Your task to perform on an android device: Open sound settings Image 0: 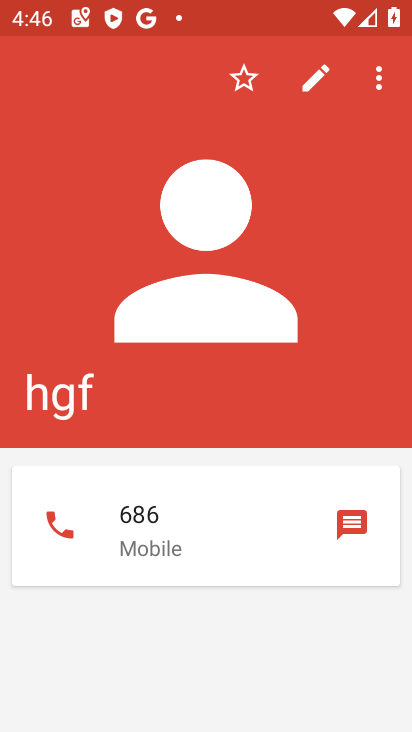
Step 0: press back button
Your task to perform on an android device: Open sound settings Image 1: 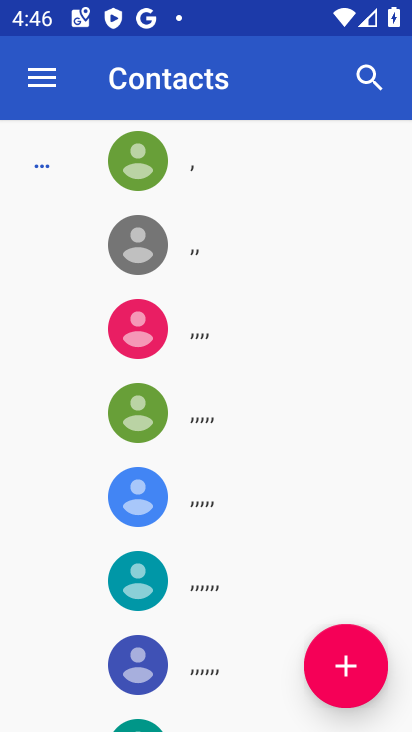
Step 1: press home button
Your task to perform on an android device: Open sound settings Image 2: 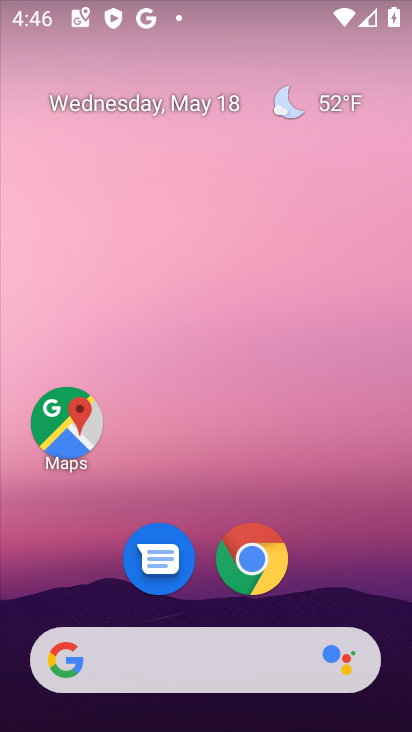
Step 2: drag from (180, 610) to (256, 68)
Your task to perform on an android device: Open sound settings Image 3: 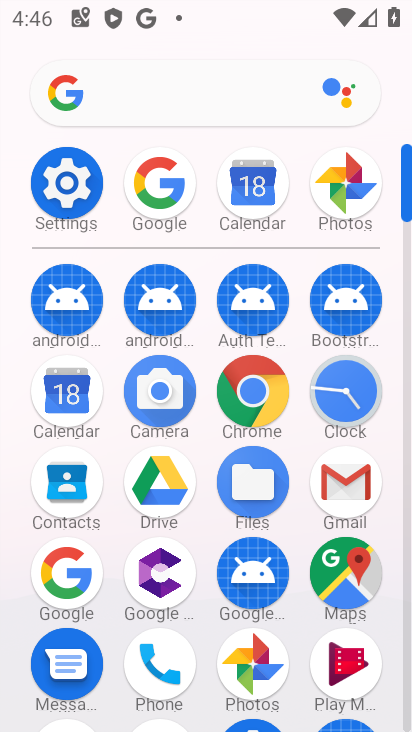
Step 3: click (65, 184)
Your task to perform on an android device: Open sound settings Image 4: 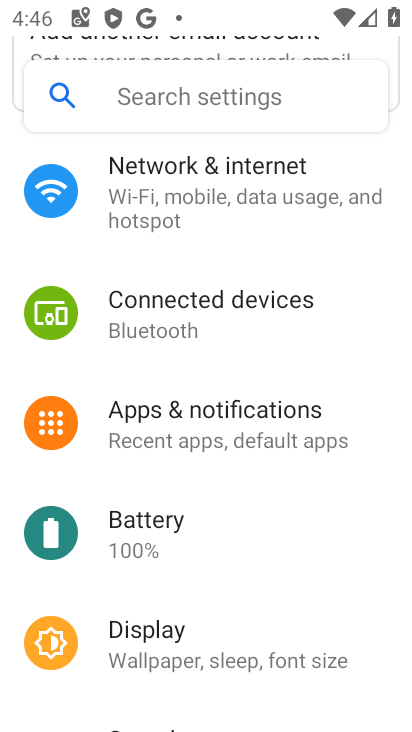
Step 4: drag from (174, 581) to (285, 98)
Your task to perform on an android device: Open sound settings Image 5: 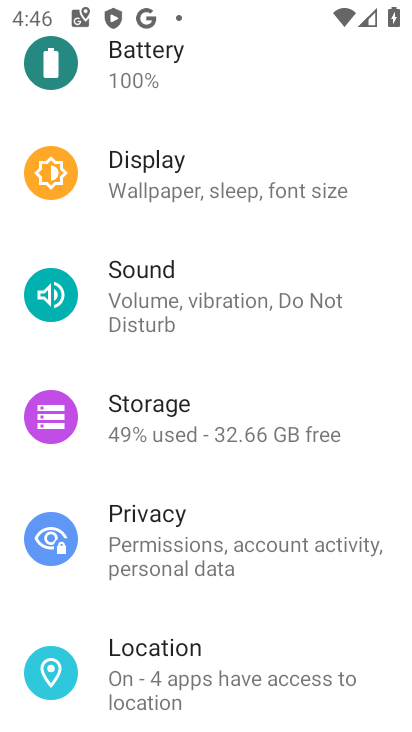
Step 5: click (128, 302)
Your task to perform on an android device: Open sound settings Image 6: 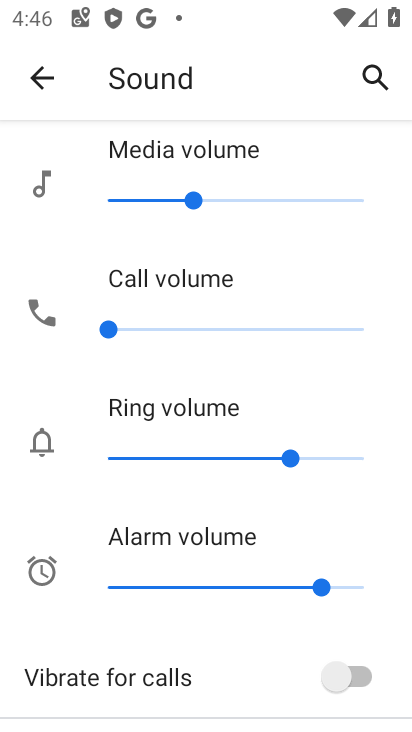
Step 6: task complete